Your task to perform on an android device: turn on priority inbox in the gmail app Image 0: 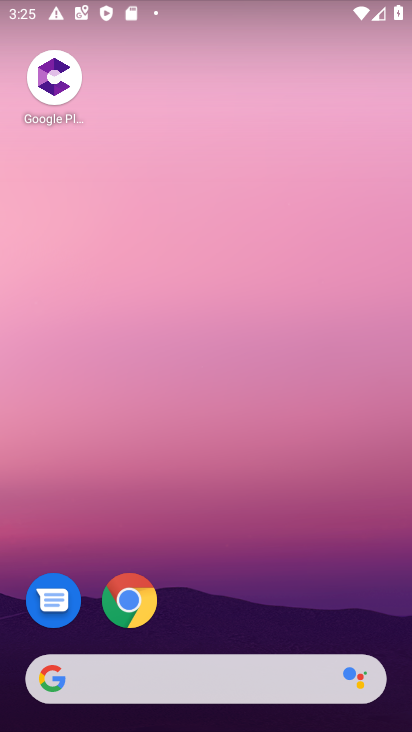
Step 0: drag from (392, 697) to (336, 77)
Your task to perform on an android device: turn on priority inbox in the gmail app Image 1: 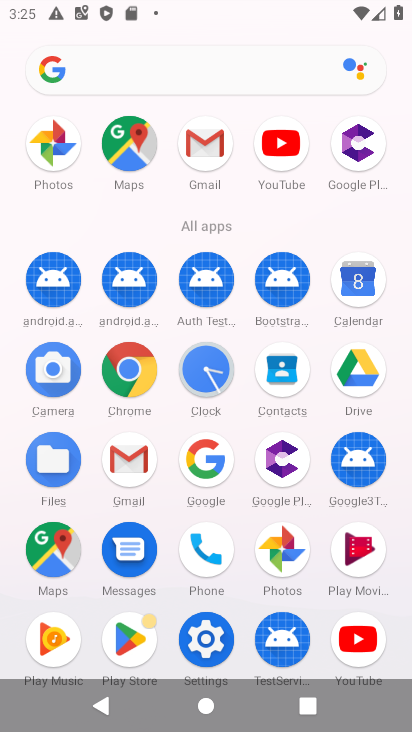
Step 1: click (138, 461)
Your task to perform on an android device: turn on priority inbox in the gmail app Image 2: 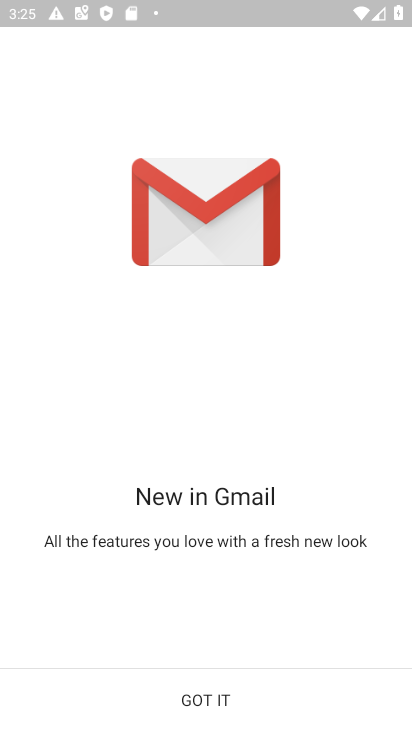
Step 2: click (197, 696)
Your task to perform on an android device: turn on priority inbox in the gmail app Image 3: 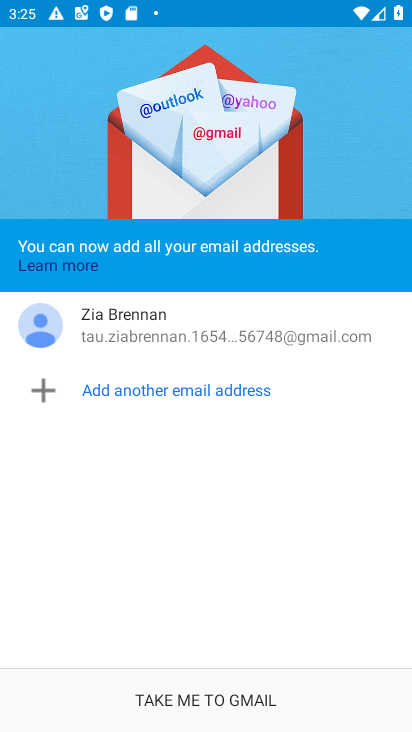
Step 3: click (197, 690)
Your task to perform on an android device: turn on priority inbox in the gmail app Image 4: 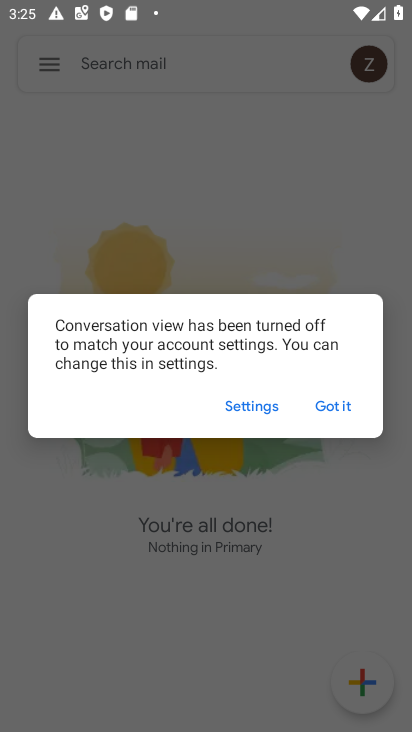
Step 4: click (328, 404)
Your task to perform on an android device: turn on priority inbox in the gmail app Image 5: 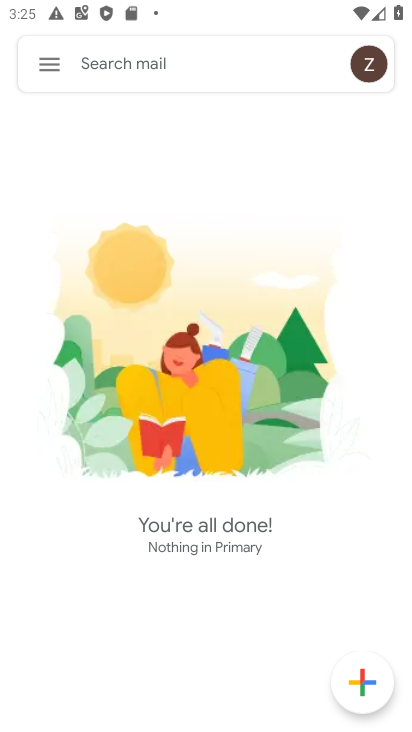
Step 5: click (47, 64)
Your task to perform on an android device: turn on priority inbox in the gmail app Image 6: 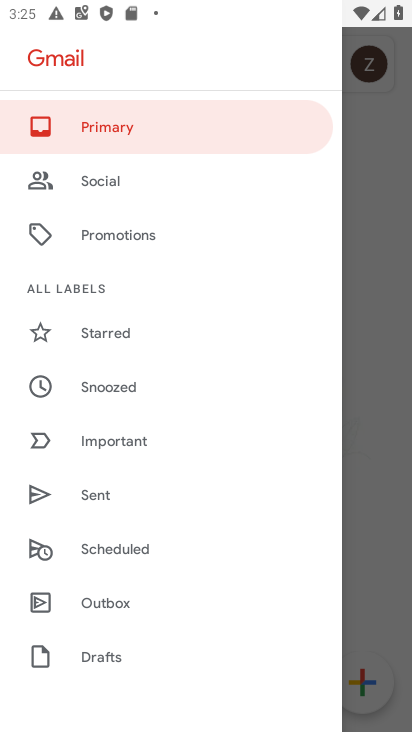
Step 6: drag from (241, 623) to (248, 122)
Your task to perform on an android device: turn on priority inbox in the gmail app Image 7: 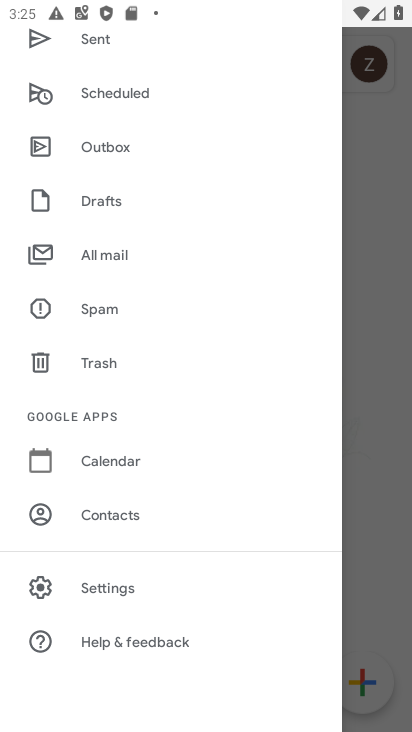
Step 7: click (69, 590)
Your task to perform on an android device: turn on priority inbox in the gmail app Image 8: 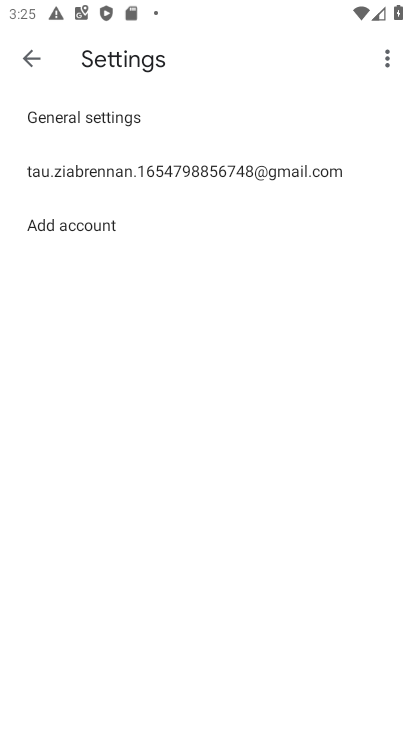
Step 8: click (171, 170)
Your task to perform on an android device: turn on priority inbox in the gmail app Image 9: 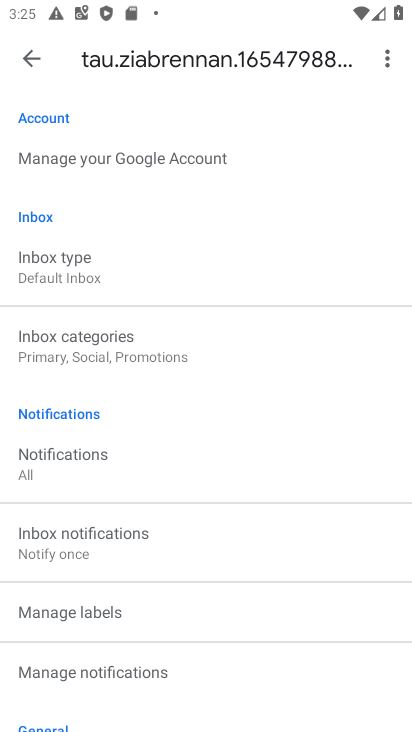
Step 9: click (50, 265)
Your task to perform on an android device: turn on priority inbox in the gmail app Image 10: 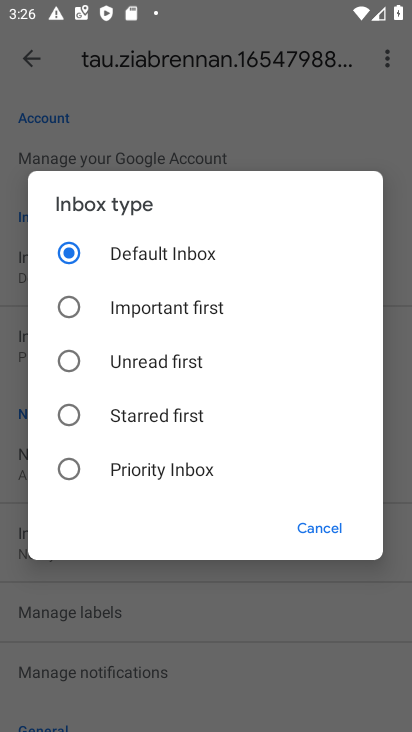
Step 10: click (129, 471)
Your task to perform on an android device: turn on priority inbox in the gmail app Image 11: 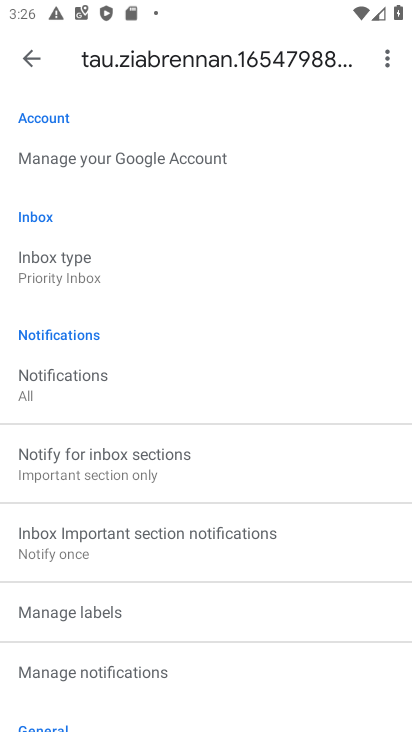
Step 11: task complete